Your task to perform on an android device: Go to battery settings Image 0: 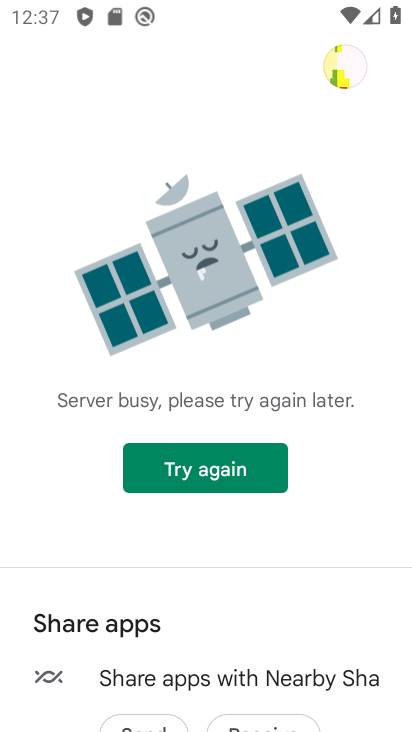
Step 0: press home button
Your task to perform on an android device: Go to battery settings Image 1: 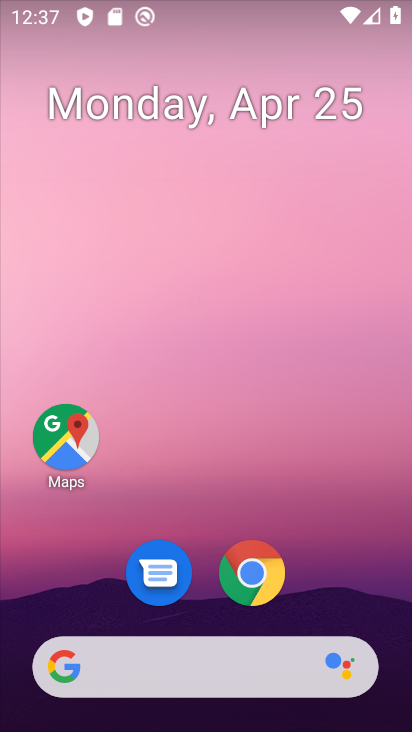
Step 1: drag from (211, 505) to (249, 72)
Your task to perform on an android device: Go to battery settings Image 2: 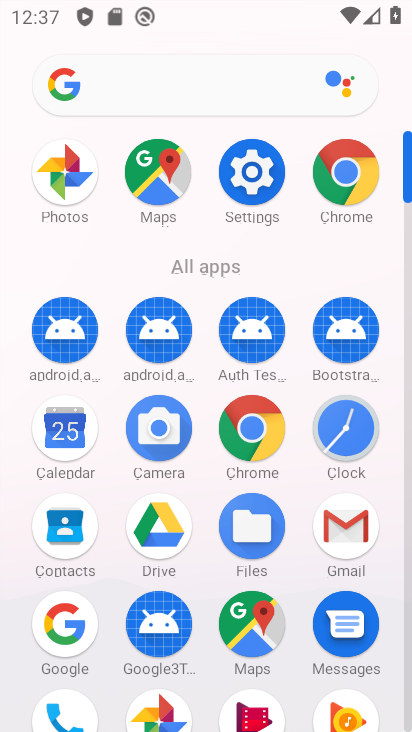
Step 2: click (260, 184)
Your task to perform on an android device: Go to battery settings Image 3: 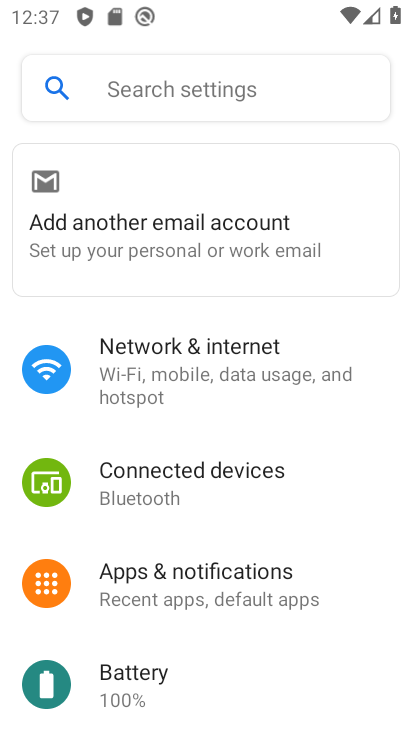
Step 3: click (184, 697)
Your task to perform on an android device: Go to battery settings Image 4: 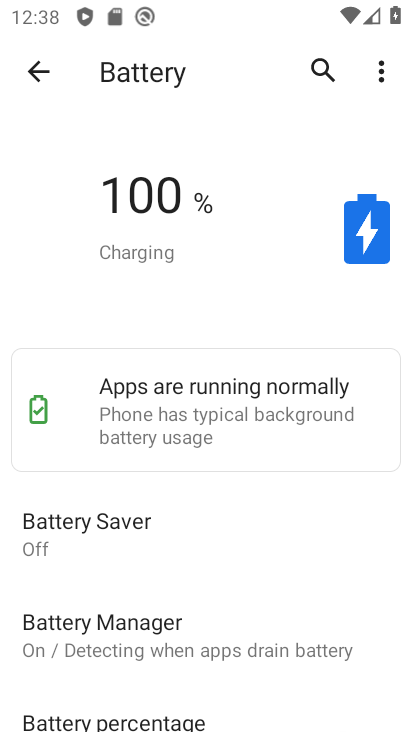
Step 4: task complete